Your task to perform on an android device: install app "McDonald's" Image 0: 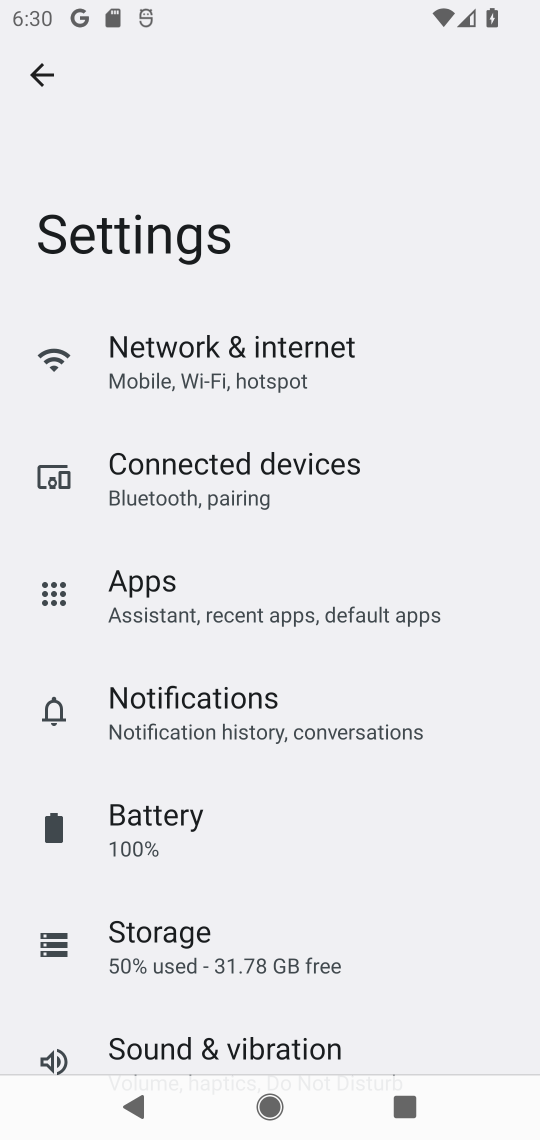
Step 0: press home button
Your task to perform on an android device: install app "McDonald's" Image 1: 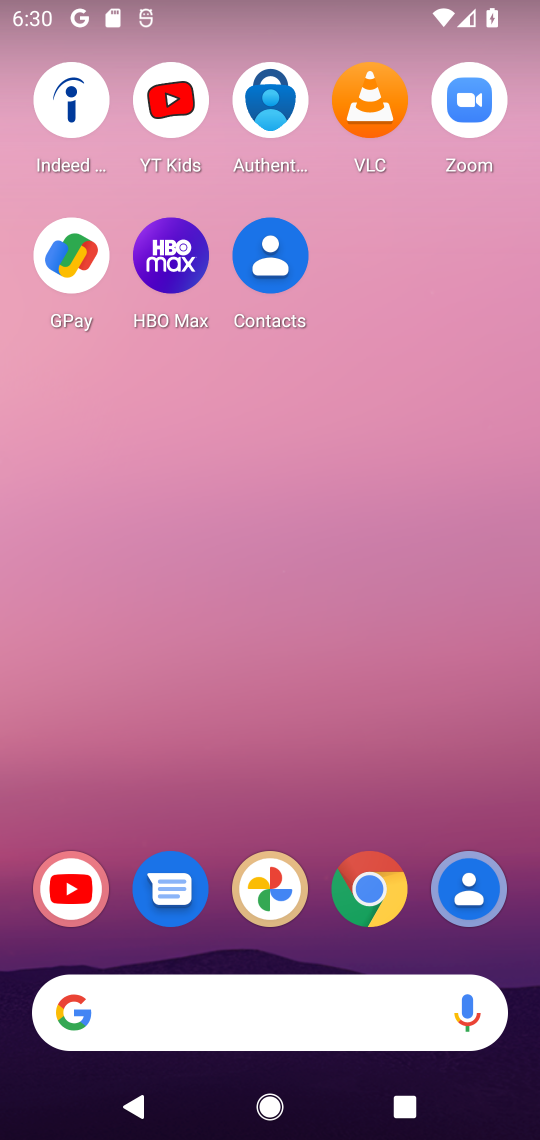
Step 1: press home button
Your task to perform on an android device: install app "McDonald's" Image 2: 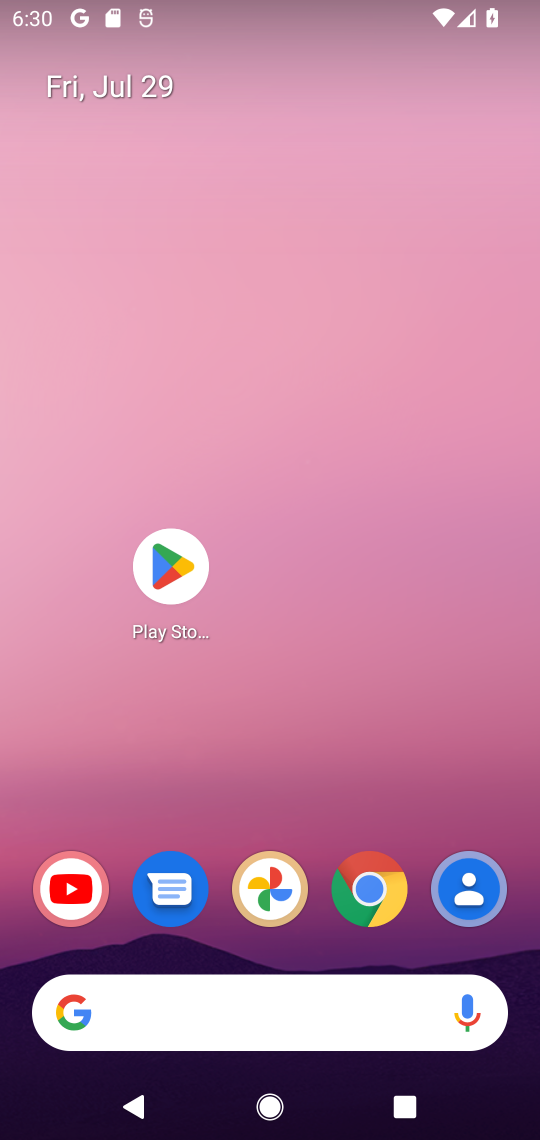
Step 2: click (176, 570)
Your task to perform on an android device: install app "McDonald's" Image 3: 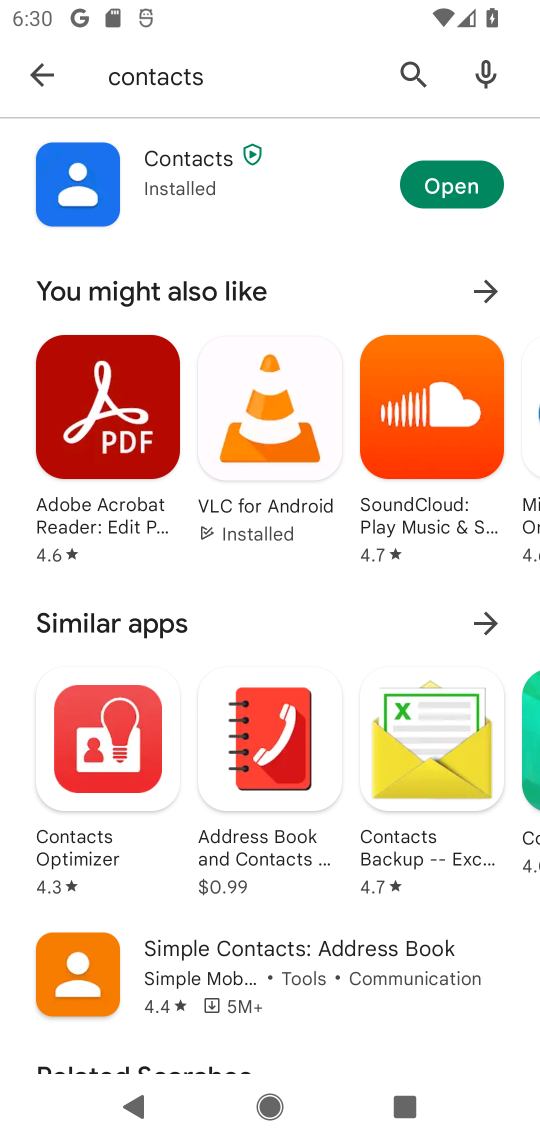
Step 3: click (403, 73)
Your task to perform on an android device: install app "McDonald's" Image 4: 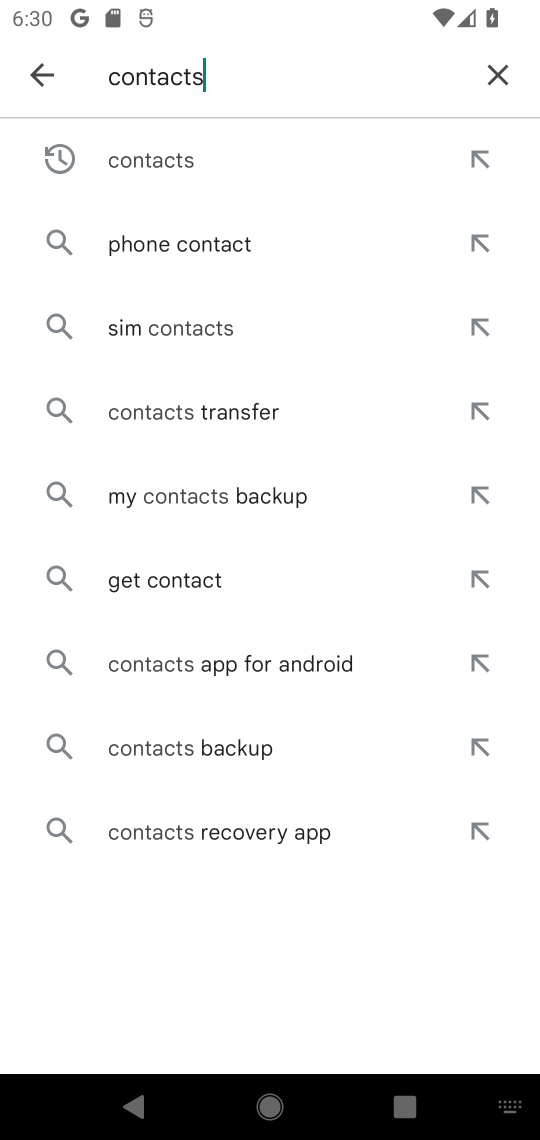
Step 4: click (491, 59)
Your task to perform on an android device: install app "McDonald's" Image 5: 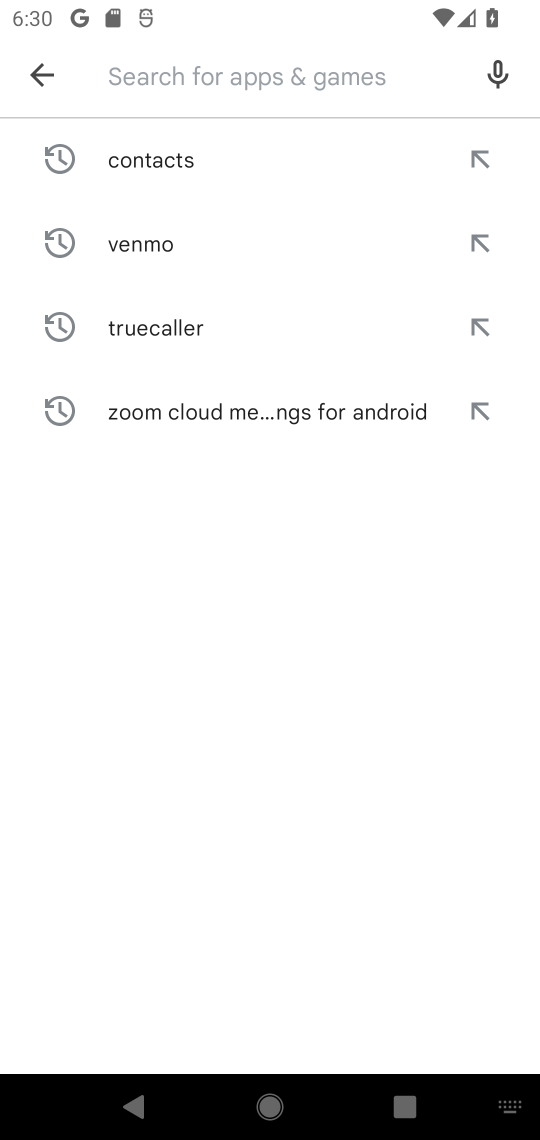
Step 5: type "McDonald's"
Your task to perform on an android device: install app "McDonald's" Image 6: 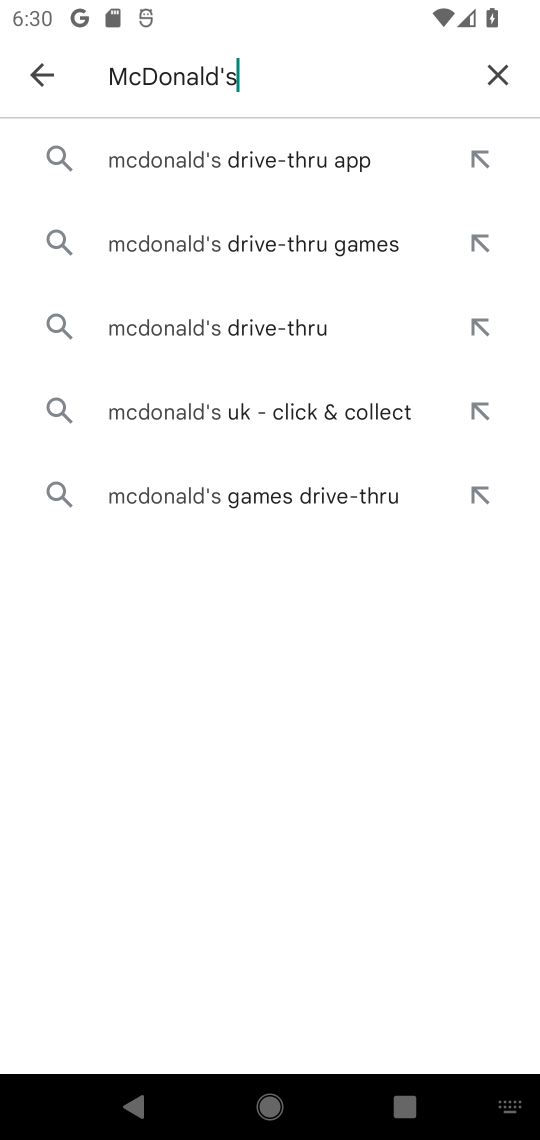
Step 6: click (186, 159)
Your task to perform on an android device: install app "McDonald's" Image 7: 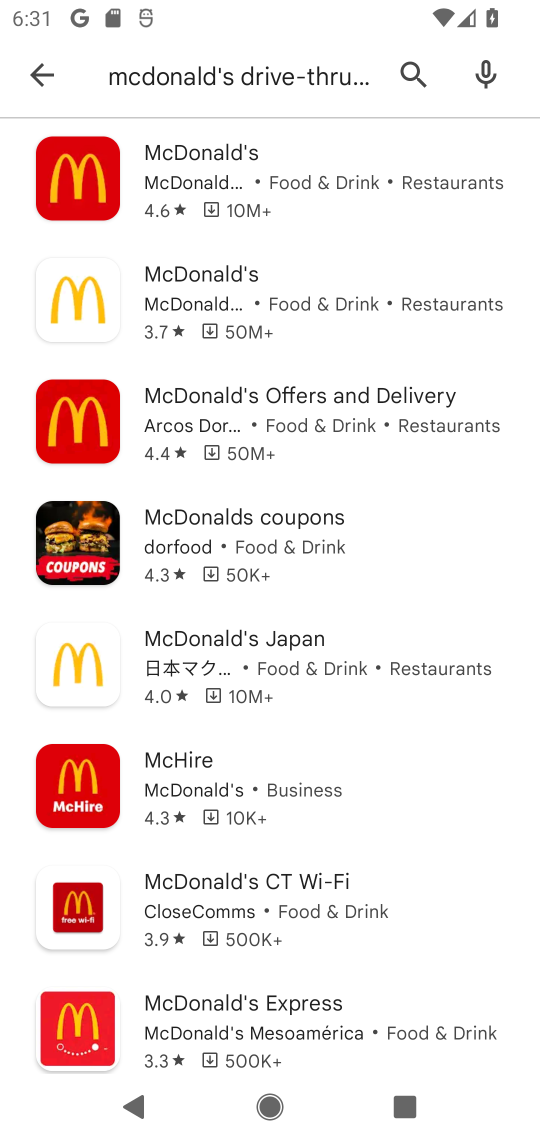
Step 7: click (183, 171)
Your task to perform on an android device: install app "McDonald's" Image 8: 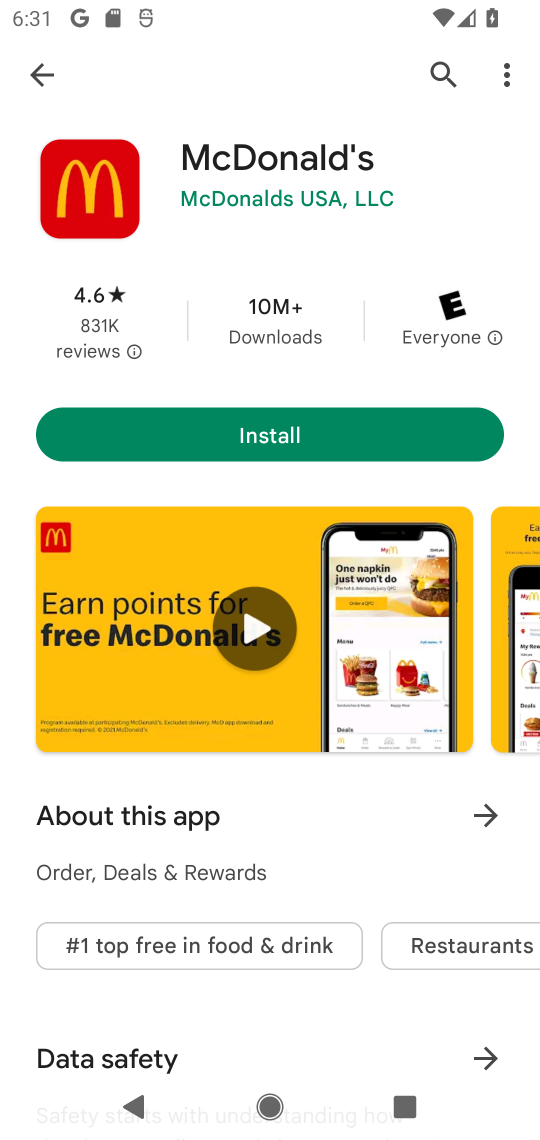
Step 8: click (274, 435)
Your task to perform on an android device: install app "McDonald's" Image 9: 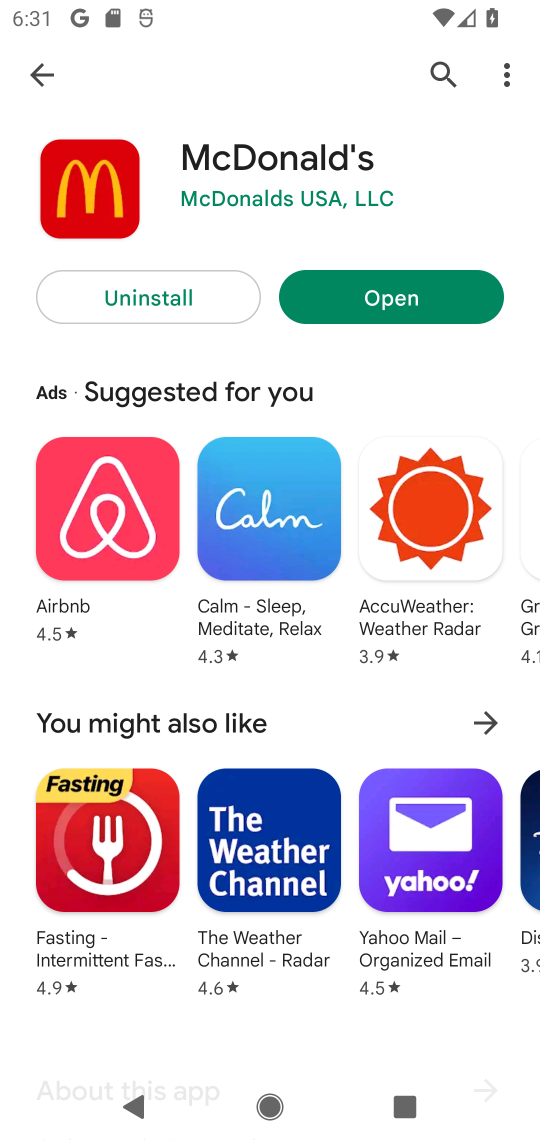
Step 9: task complete